Your task to perform on an android device: What's the weather going to be this weekend? Image 0: 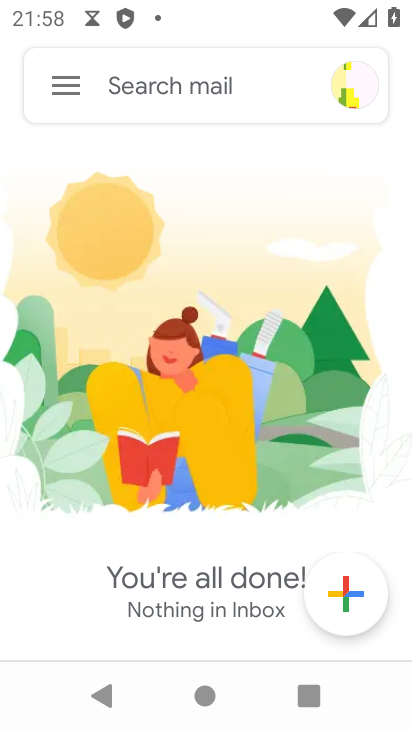
Step 0: press home button
Your task to perform on an android device: What's the weather going to be this weekend? Image 1: 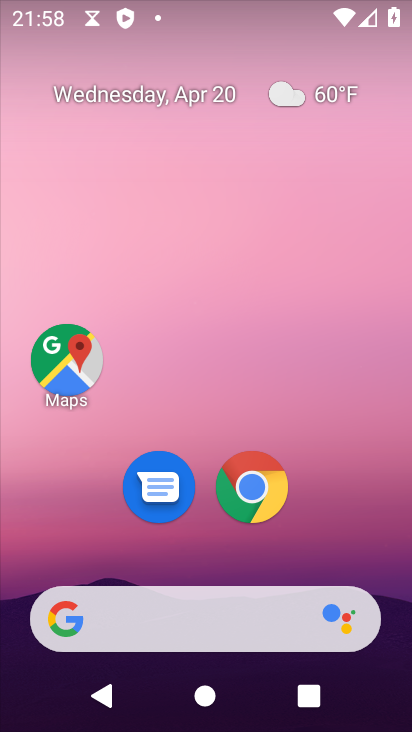
Step 1: click (259, 508)
Your task to perform on an android device: What's the weather going to be this weekend? Image 2: 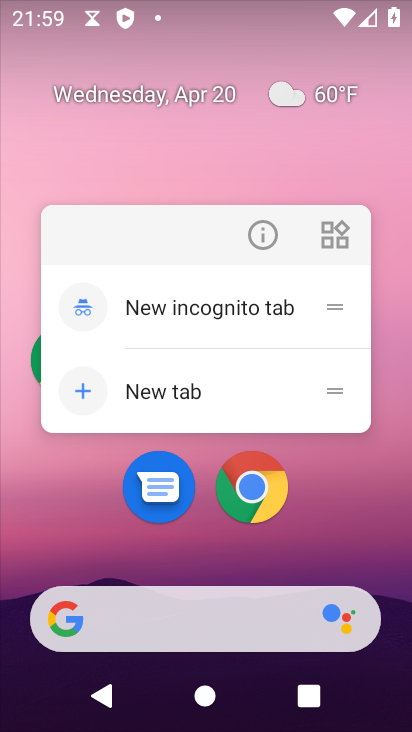
Step 2: click (257, 229)
Your task to perform on an android device: What's the weather going to be this weekend? Image 3: 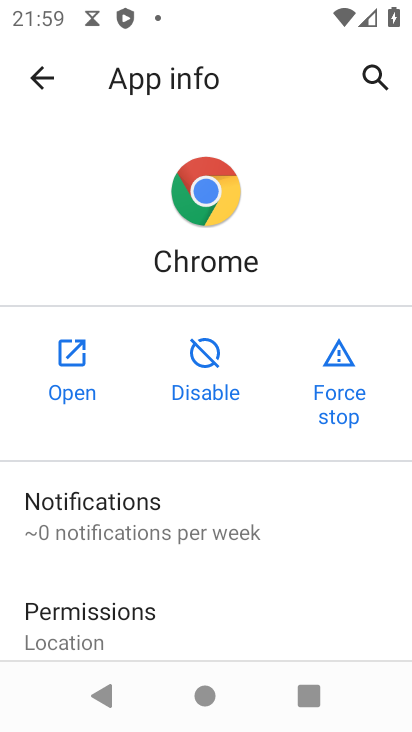
Step 3: click (78, 359)
Your task to perform on an android device: What's the weather going to be this weekend? Image 4: 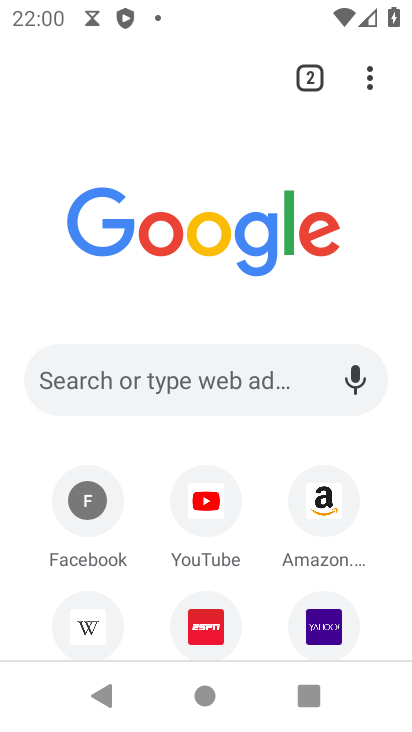
Step 4: click (118, 393)
Your task to perform on an android device: What's the weather going to be this weekend? Image 5: 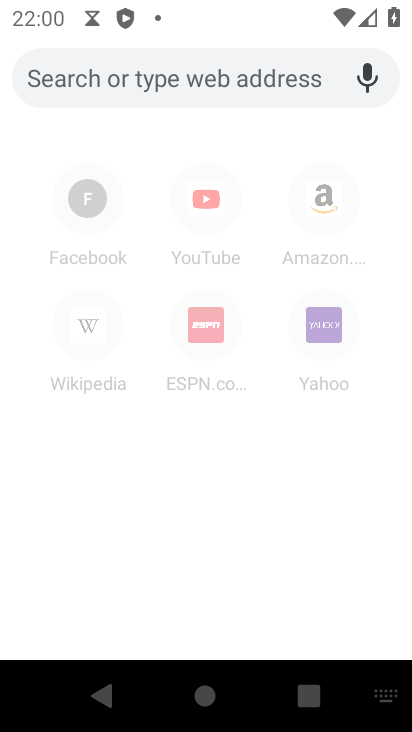
Step 5: click (115, 82)
Your task to perform on an android device: What's the weather going to be this weekend? Image 6: 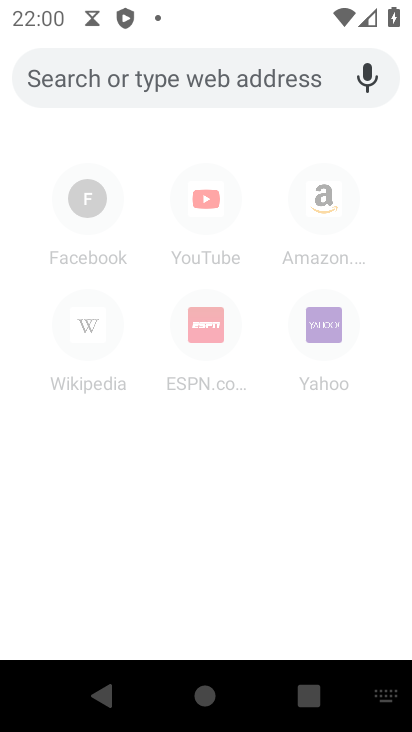
Step 6: click (179, 94)
Your task to perform on an android device: What's the weather going to be this weekend? Image 7: 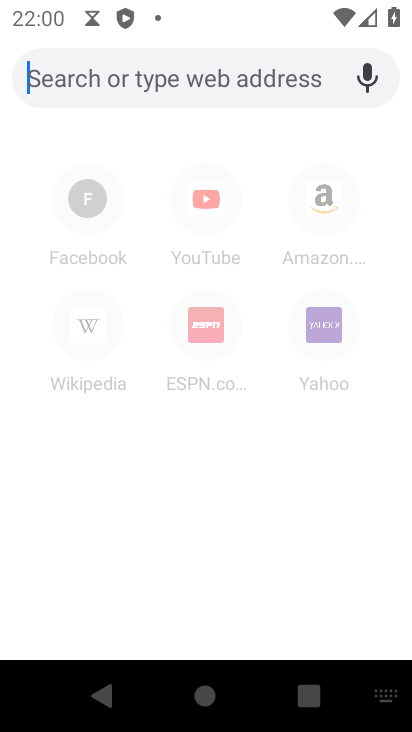
Step 7: type "weather"
Your task to perform on an android device: What's the weather going to be this weekend? Image 8: 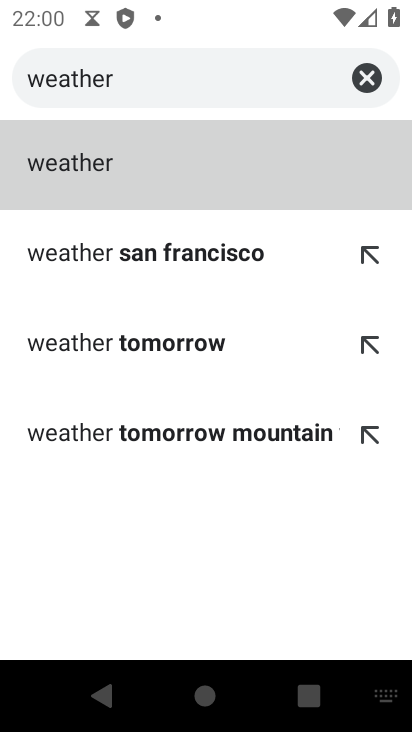
Step 8: click (243, 174)
Your task to perform on an android device: What's the weather going to be this weekend? Image 9: 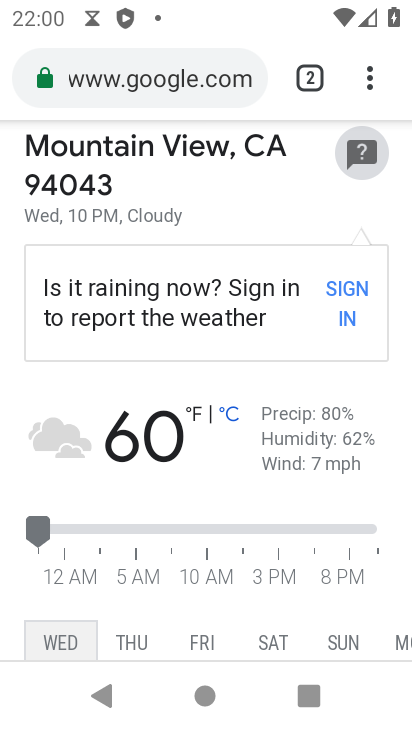
Step 9: task complete